Your task to perform on an android device: What is the news today? Image 0: 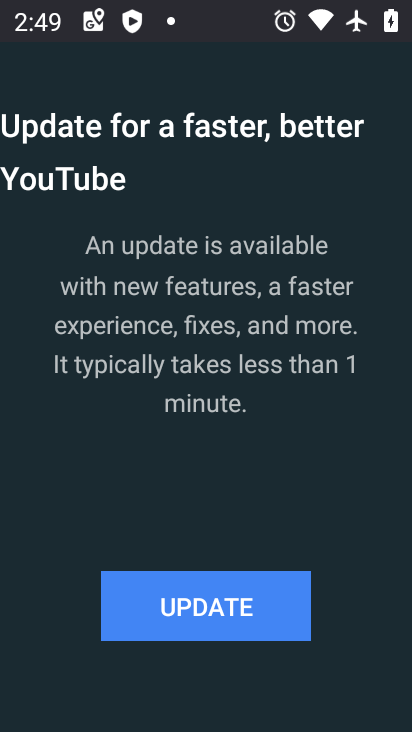
Step 0: press home button
Your task to perform on an android device: What is the news today? Image 1: 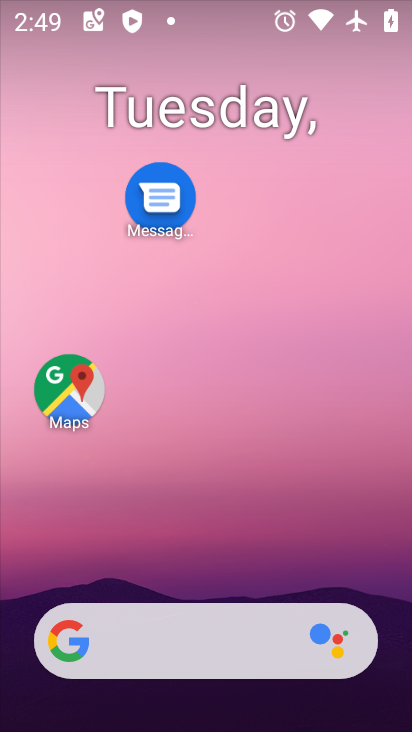
Step 1: drag from (203, 566) to (244, 181)
Your task to perform on an android device: What is the news today? Image 2: 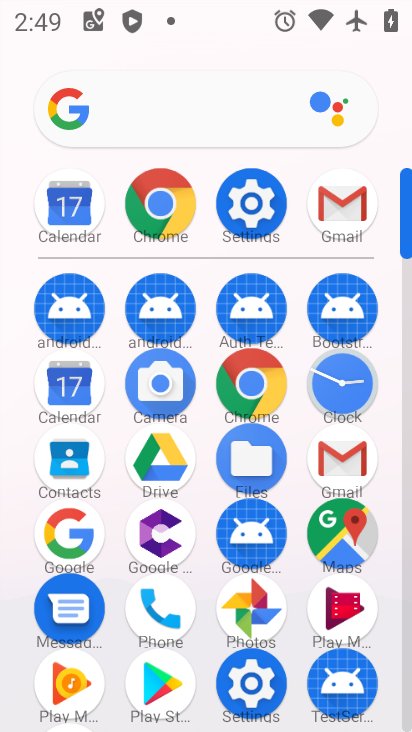
Step 2: click (85, 540)
Your task to perform on an android device: What is the news today? Image 3: 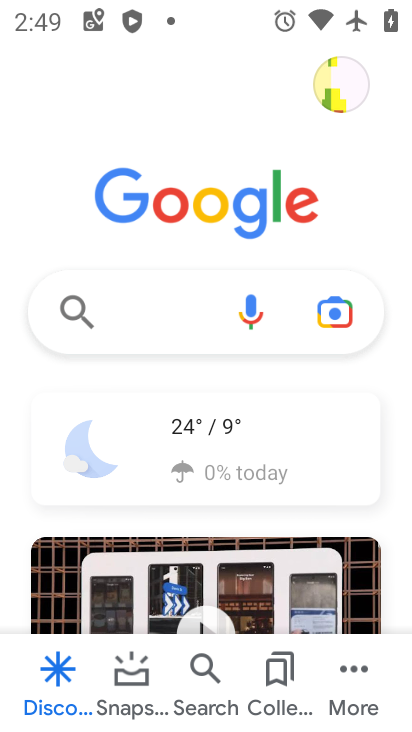
Step 3: click (195, 306)
Your task to perform on an android device: What is the news today? Image 4: 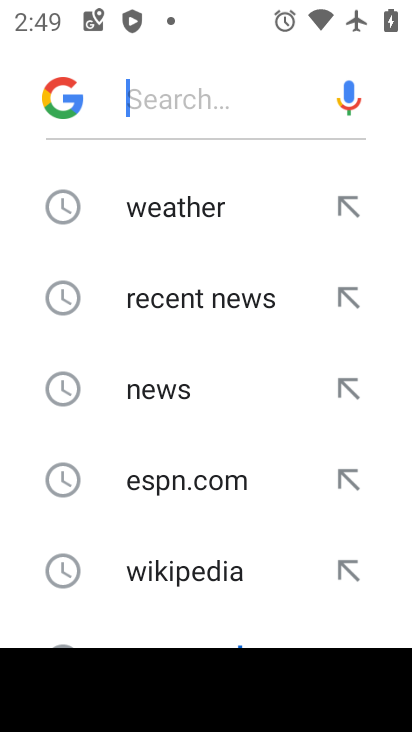
Step 4: click (156, 398)
Your task to perform on an android device: What is the news today? Image 5: 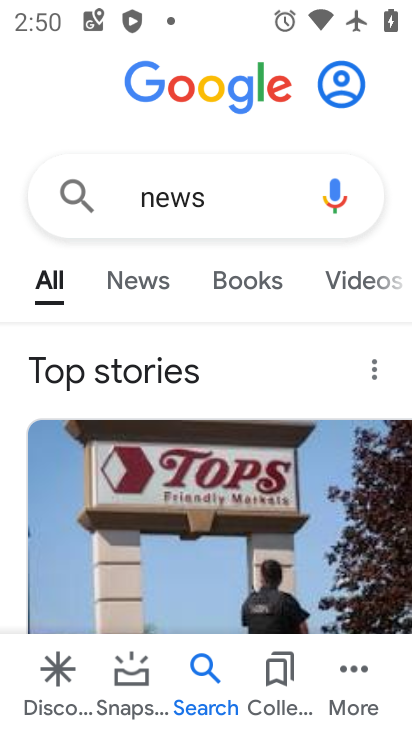
Step 5: drag from (217, 520) to (224, 376)
Your task to perform on an android device: What is the news today? Image 6: 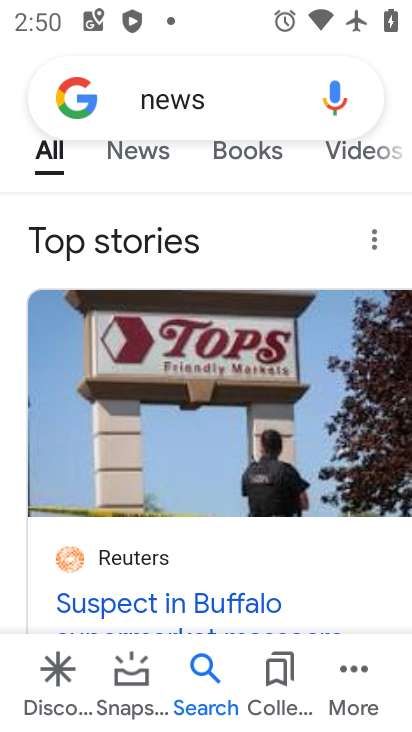
Step 6: click (131, 156)
Your task to perform on an android device: What is the news today? Image 7: 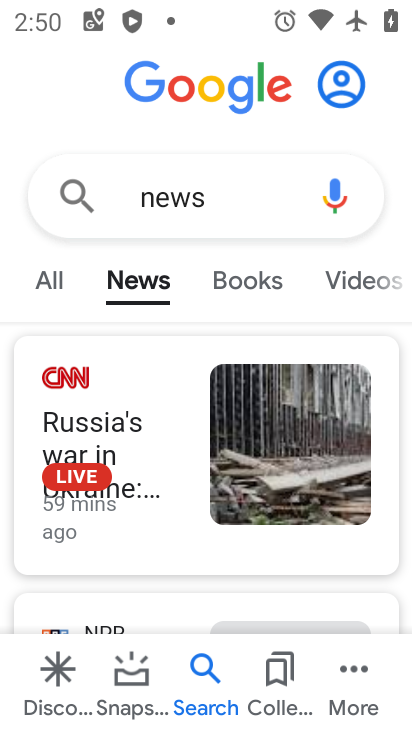
Step 7: task complete